Your task to perform on an android device: open chrome privacy settings Image 0: 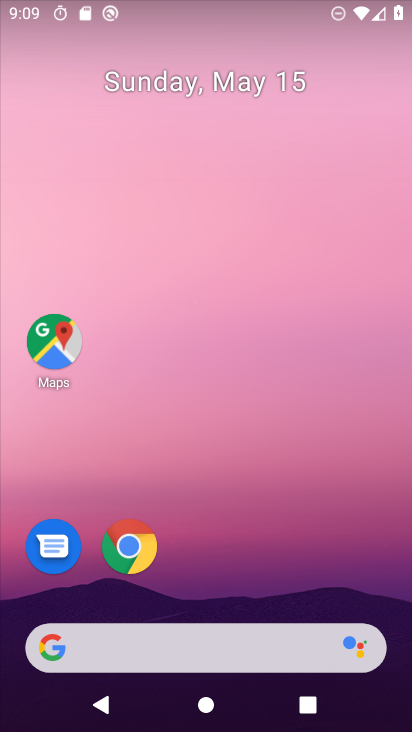
Step 0: click (139, 535)
Your task to perform on an android device: open chrome privacy settings Image 1: 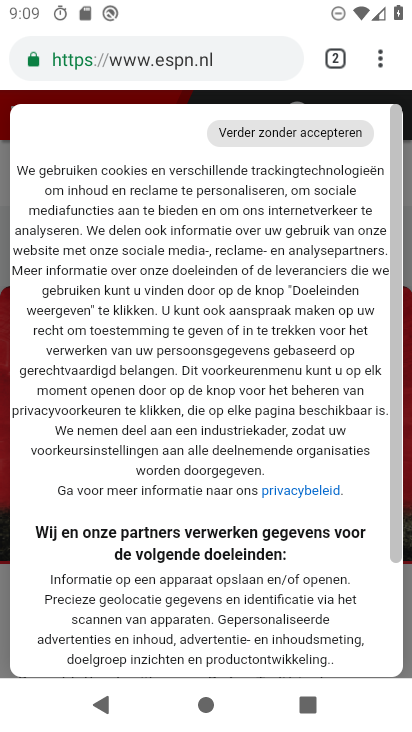
Step 1: click (380, 62)
Your task to perform on an android device: open chrome privacy settings Image 2: 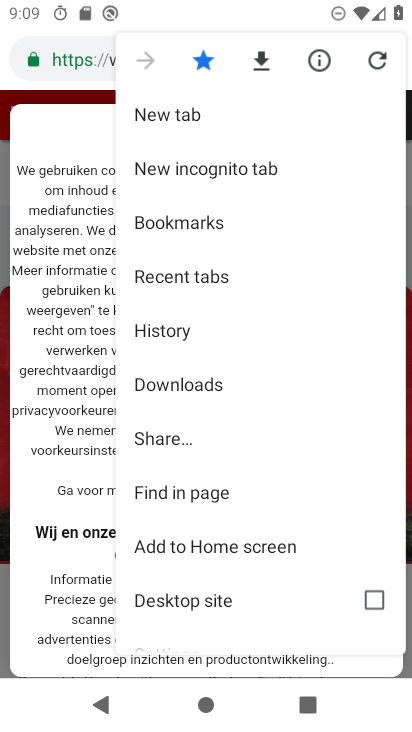
Step 2: drag from (229, 483) to (275, 250)
Your task to perform on an android device: open chrome privacy settings Image 3: 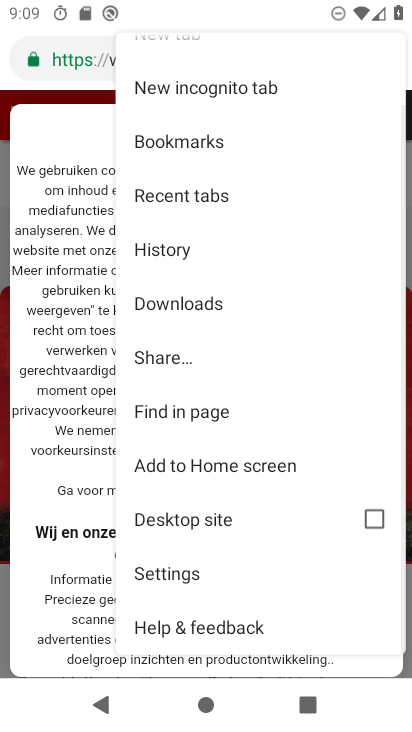
Step 3: click (205, 568)
Your task to perform on an android device: open chrome privacy settings Image 4: 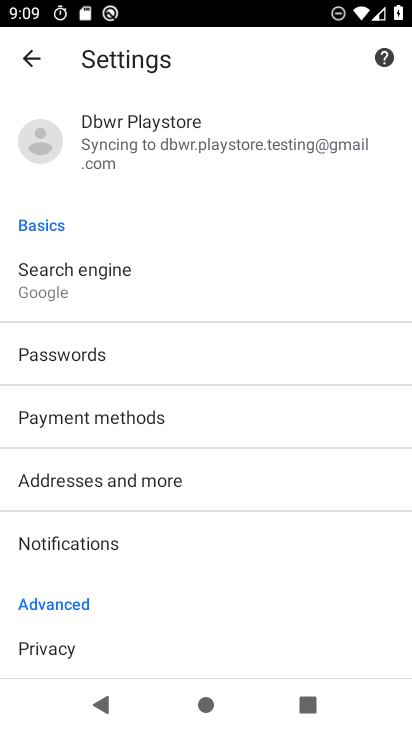
Step 4: click (140, 652)
Your task to perform on an android device: open chrome privacy settings Image 5: 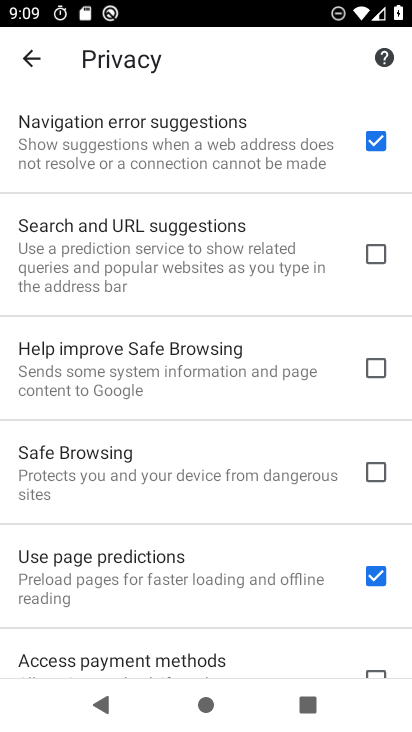
Step 5: task complete